Your task to perform on an android device: Open the map Image 0: 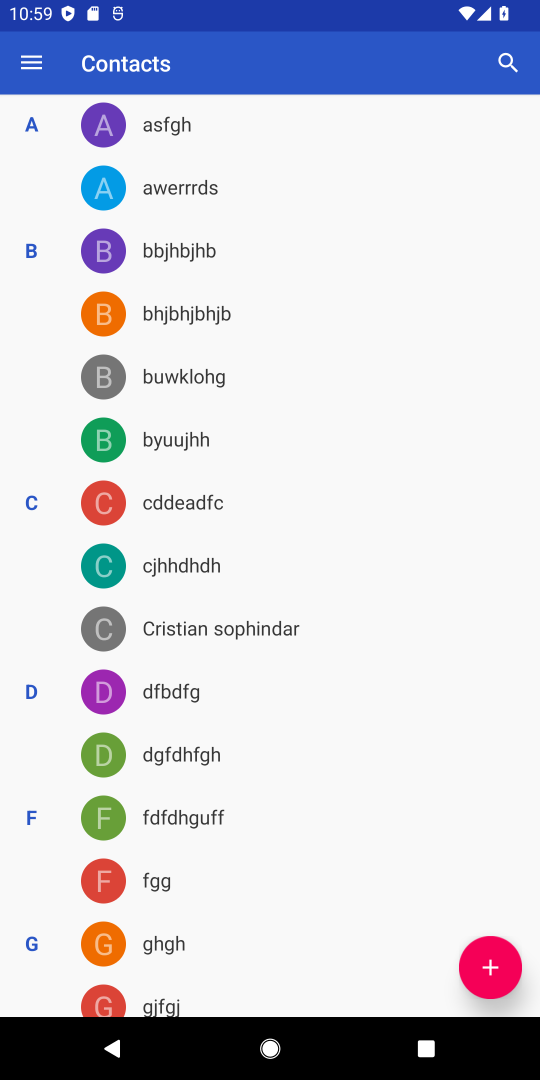
Step 0: press home button
Your task to perform on an android device: Open the map Image 1: 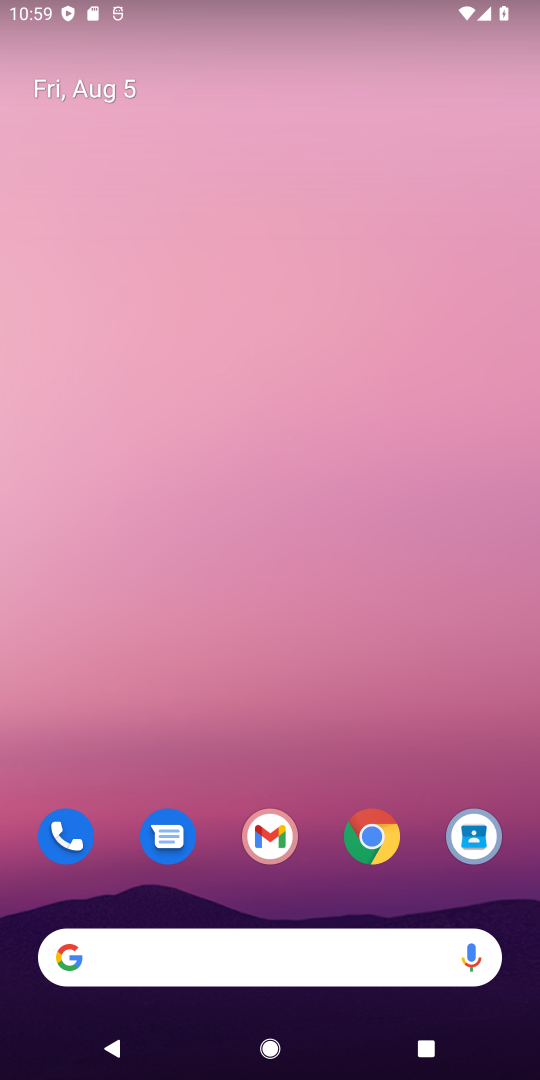
Step 1: drag from (313, 867) to (358, 160)
Your task to perform on an android device: Open the map Image 2: 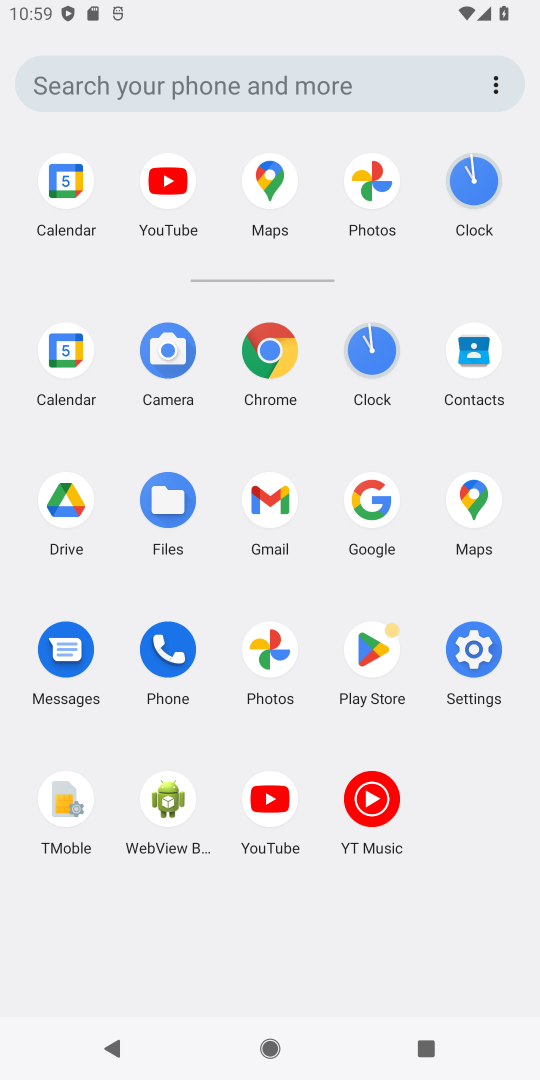
Step 2: click (486, 505)
Your task to perform on an android device: Open the map Image 3: 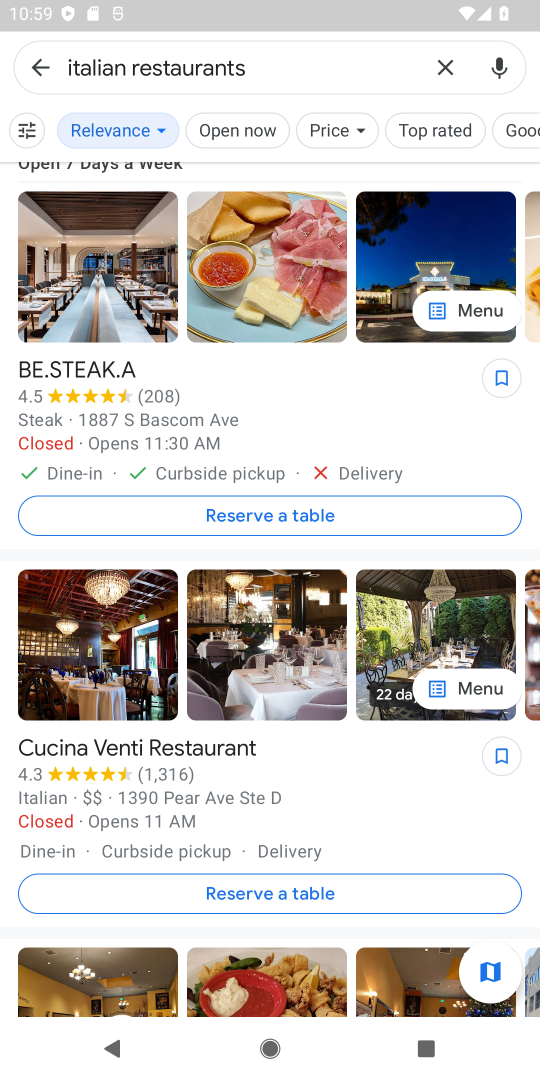
Step 3: task complete